Your task to perform on an android device: Go to eBay Image 0: 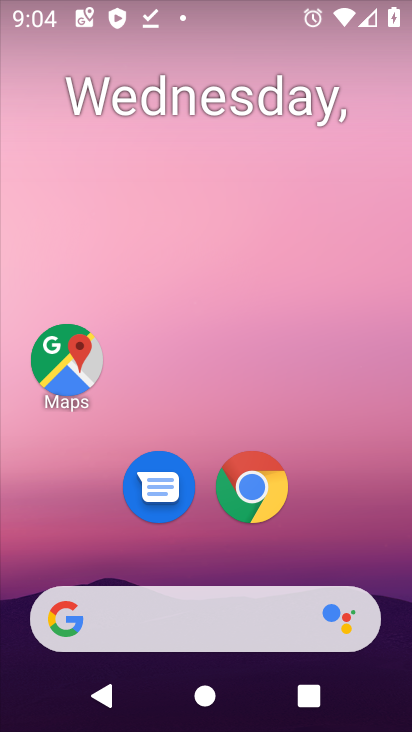
Step 0: drag from (269, 668) to (171, 174)
Your task to perform on an android device: Go to eBay Image 1: 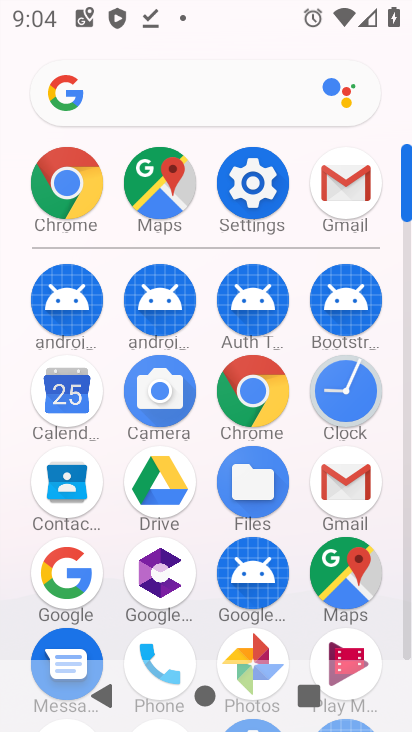
Step 1: click (68, 183)
Your task to perform on an android device: Go to eBay Image 2: 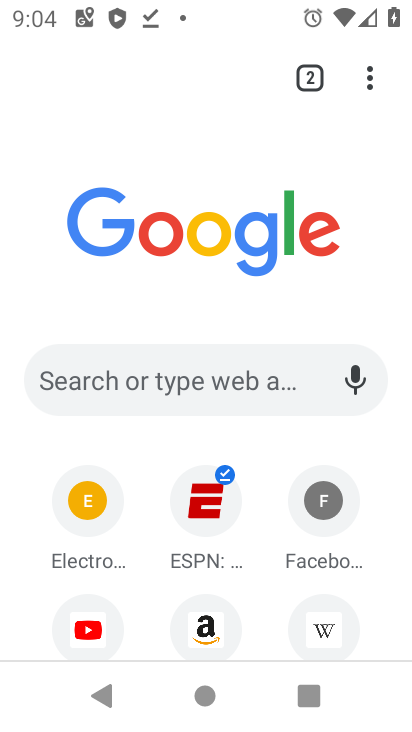
Step 2: drag from (249, 461) to (181, 197)
Your task to perform on an android device: Go to eBay Image 3: 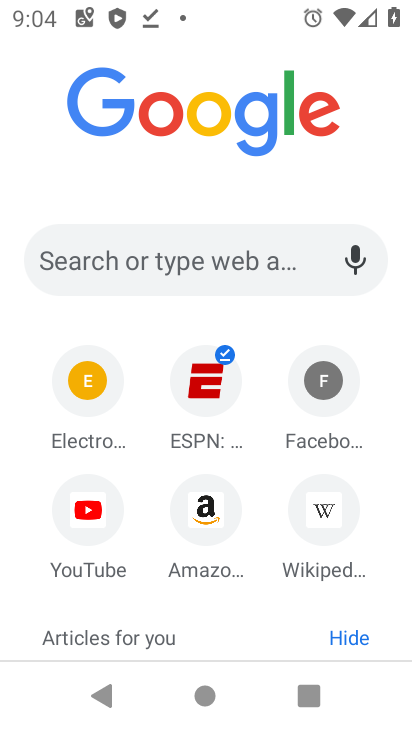
Step 3: drag from (241, 590) to (221, 202)
Your task to perform on an android device: Go to eBay Image 4: 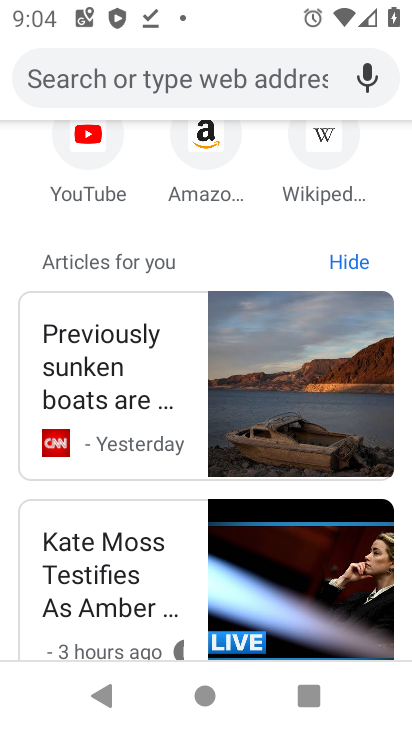
Step 4: drag from (177, 280) to (127, 419)
Your task to perform on an android device: Go to eBay Image 5: 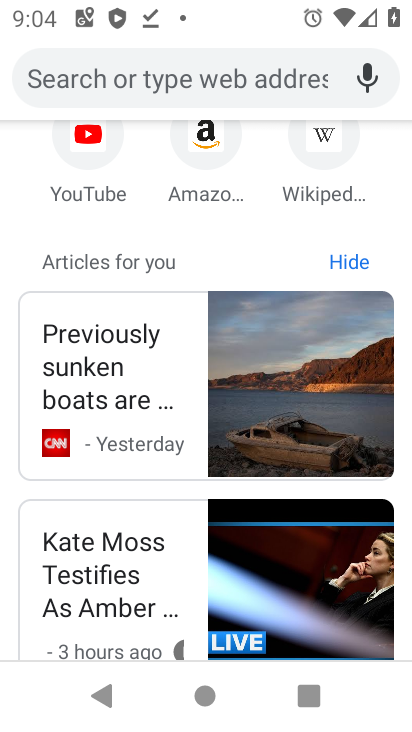
Step 5: drag from (110, 224) to (135, 520)
Your task to perform on an android device: Go to eBay Image 6: 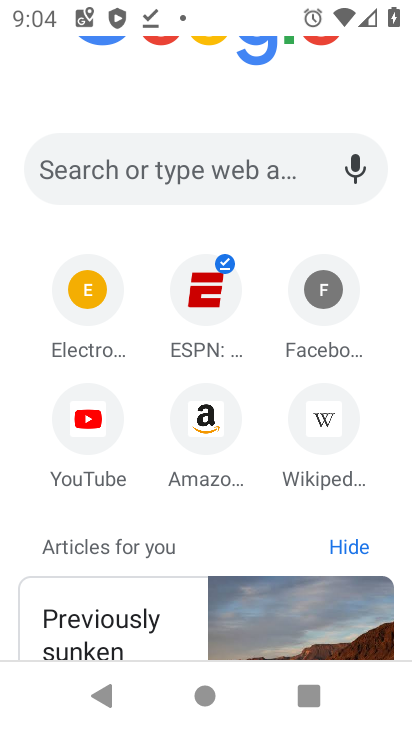
Step 6: drag from (226, 292) to (286, 500)
Your task to perform on an android device: Go to eBay Image 7: 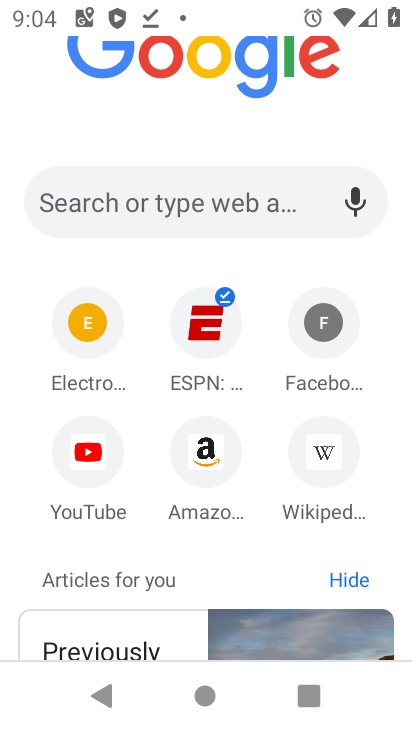
Step 7: drag from (310, 241) to (310, 451)
Your task to perform on an android device: Go to eBay Image 8: 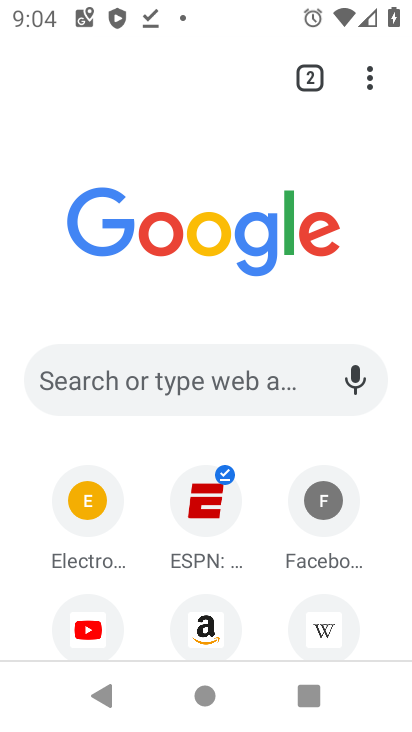
Step 8: drag from (279, 339) to (257, 564)
Your task to perform on an android device: Go to eBay Image 9: 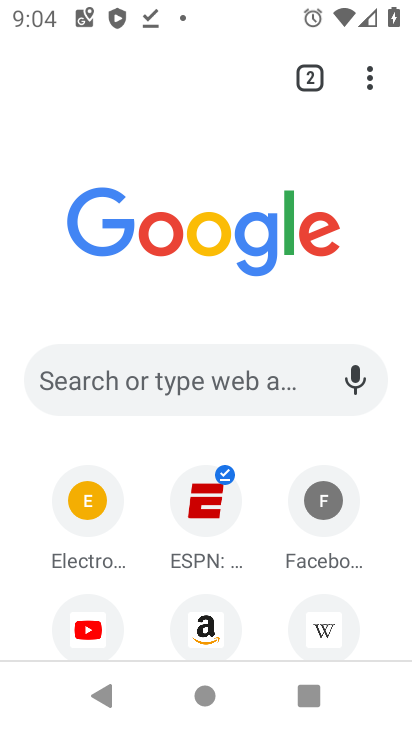
Step 9: click (63, 387)
Your task to perform on an android device: Go to eBay Image 10: 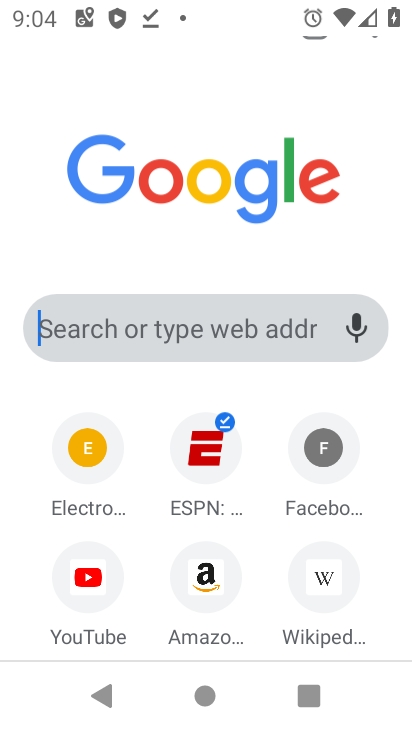
Step 10: click (69, 387)
Your task to perform on an android device: Go to eBay Image 11: 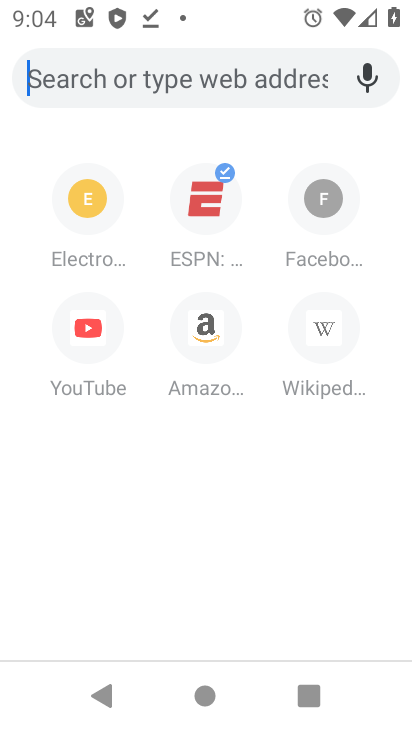
Step 11: click (73, 386)
Your task to perform on an android device: Go to eBay Image 12: 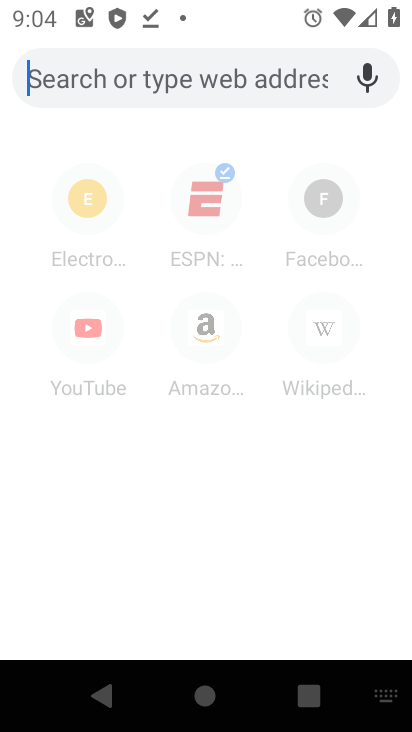
Step 12: click (76, 386)
Your task to perform on an android device: Go to eBay Image 13: 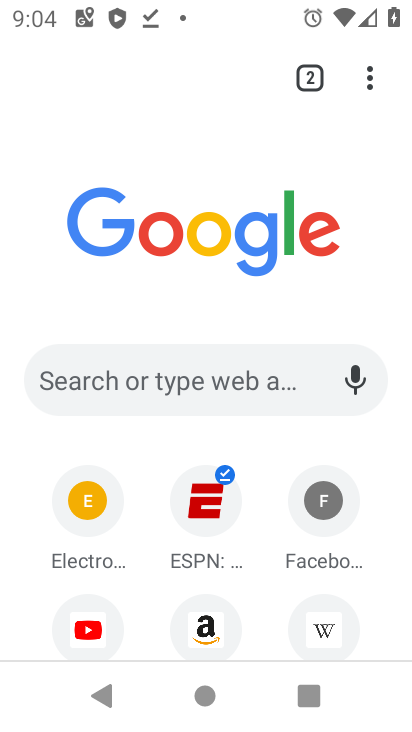
Step 13: click (55, 371)
Your task to perform on an android device: Go to eBay Image 14: 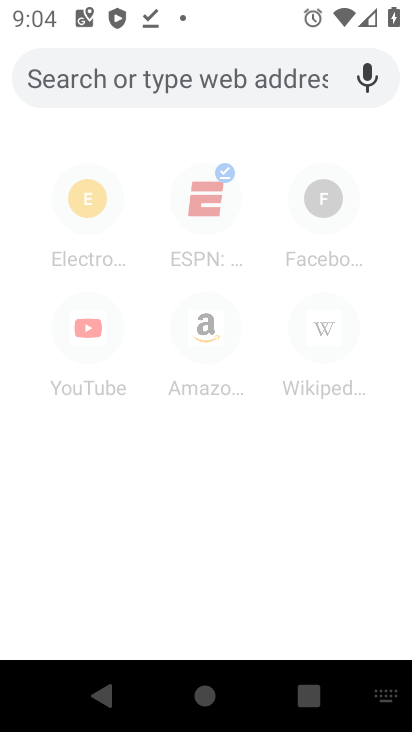
Step 14: type "ebay.com"
Your task to perform on an android device: Go to eBay Image 15: 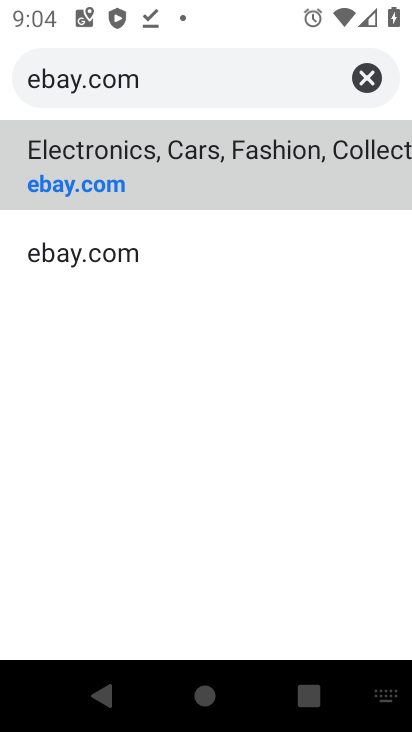
Step 15: click (54, 163)
Your task to perform on an android device: Go to eBay Image 16: 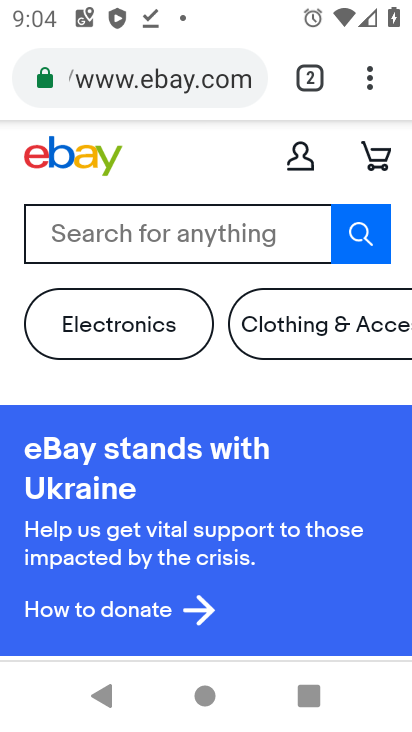
Step 16: task complete